Your task to perform on an android device: Go to Yahoo.com Image 0: 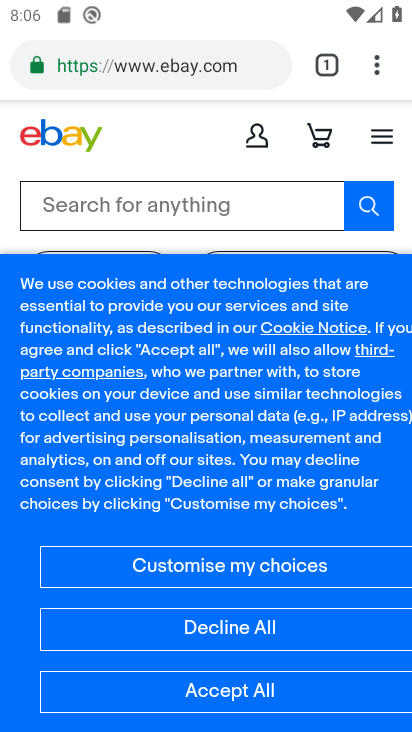
Step 0: press home button
Your task to perform on an android device: Go to Yahoo.com Image 1: 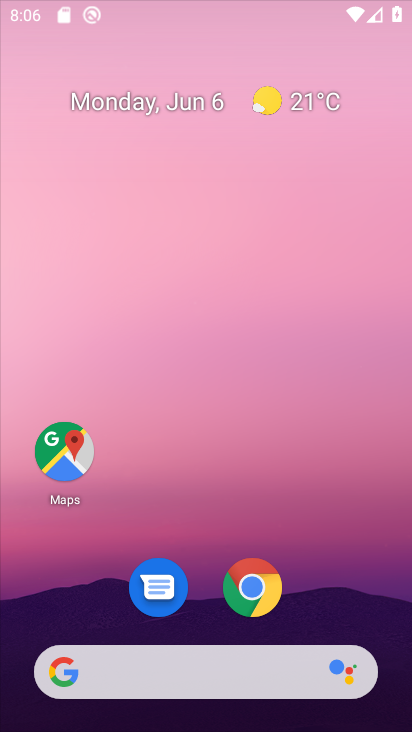
Step 1: drag from (275, 576) to (308, 169)
Your task to perform on an android device: Go to Yahoo.com Image 2: 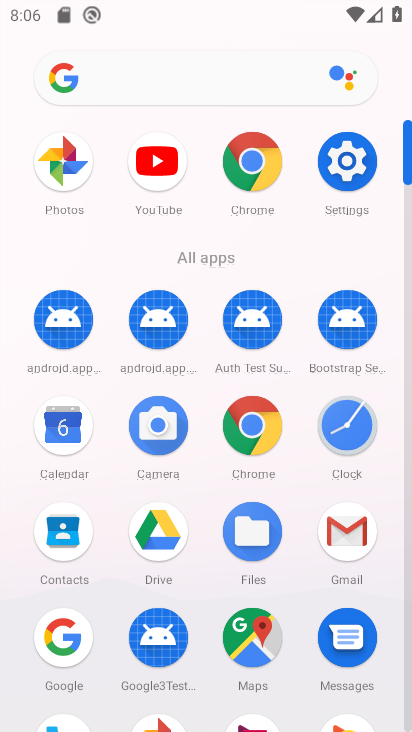
Step 2: click (259, 443)
Your task to perform on an android device: Go to Yahoo.com Image 3: 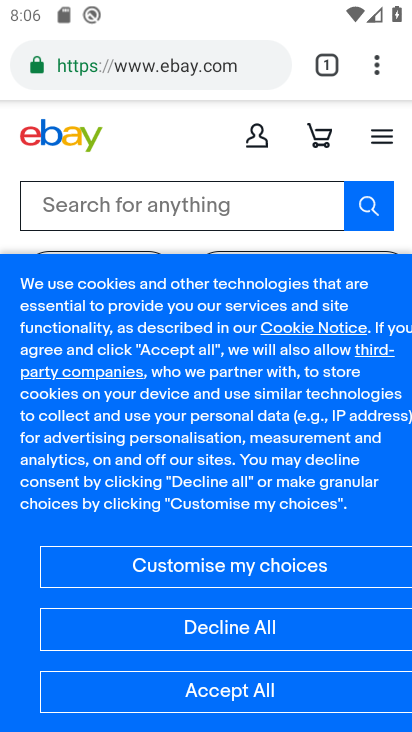
Step 3: click (320, 67)
Your task to perform on an android device: Go to Yahoo.com Image 4: 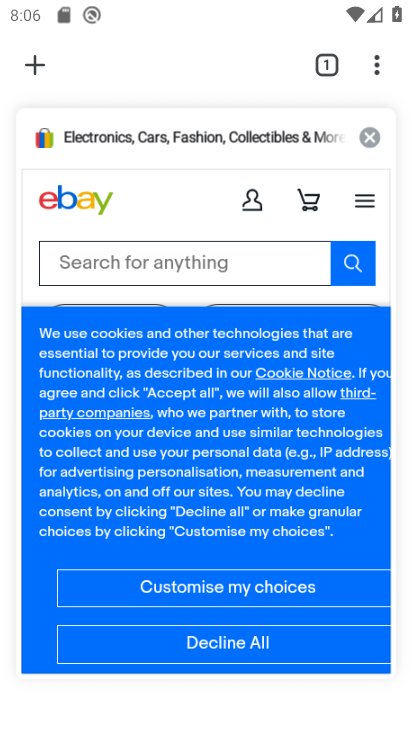
Step 4: click (34, 67)
Your task to perform on an android device: Go to Yahoo.com Image 5: 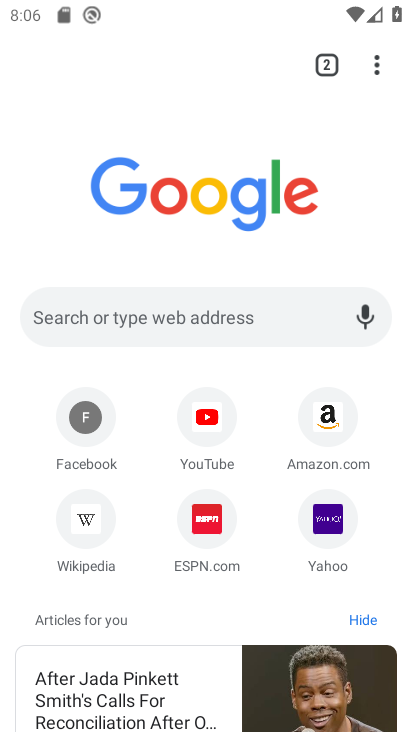
Step 5: click (335, 534)
Your task to perform on an android device: Go to Yahoo.com Image 6: 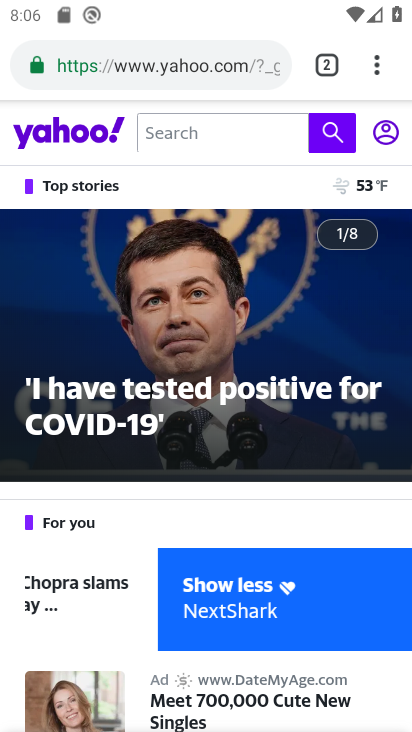
Step 6: task complete